Your task to perform on an android device: Find coffee shops on Maps Image 0: 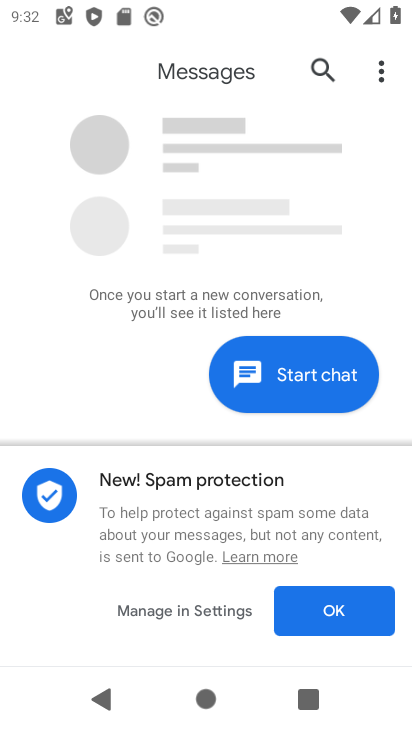
Step 0: press home button
Your task to perform on an android device: Find coffee shops on Maps Image 1: 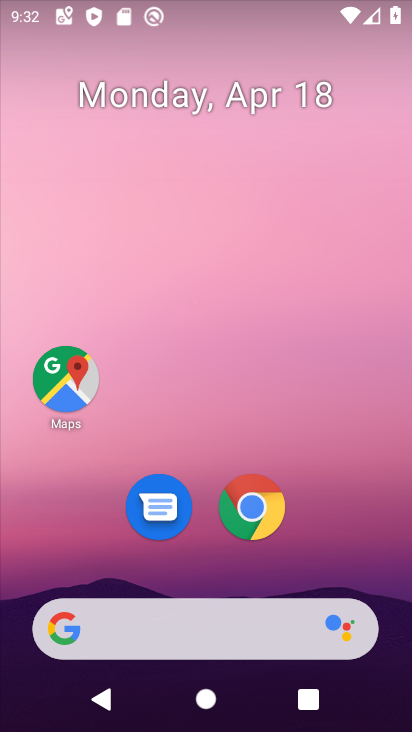
Step 1: click (72, 367)
Your task to perform on an android device: Find coffee shops on Maps Image 2: 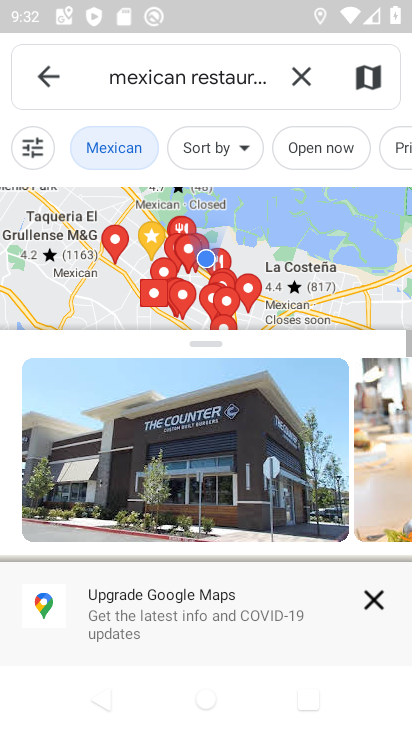
Step 2: click (307, 81)
Your task to perform on an android device: Find coffee shops on Maps Image 3: 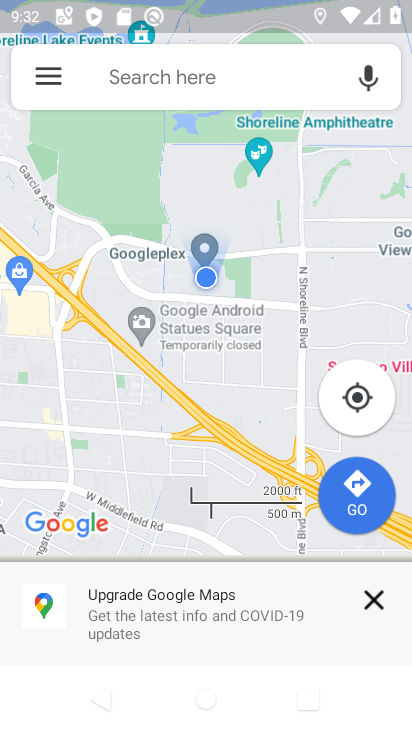
Step 3: click (176, 74)
Your task to perform on an android device: Find coffee shops on Maps Image 4: 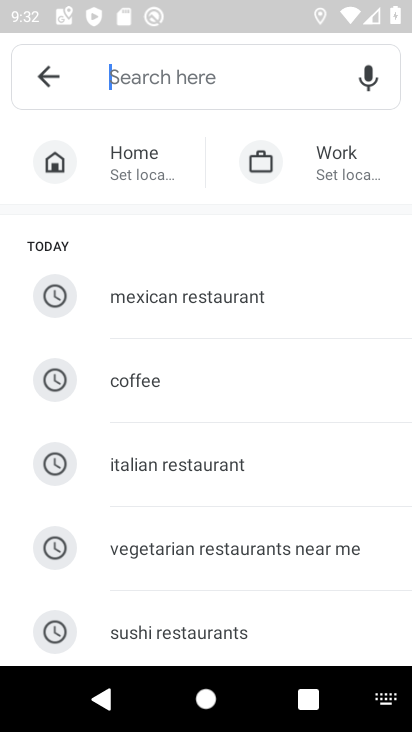
Step 4: click (135, 395)
Your task to perform on an android device: Find coffee shops on Maps Image 5: 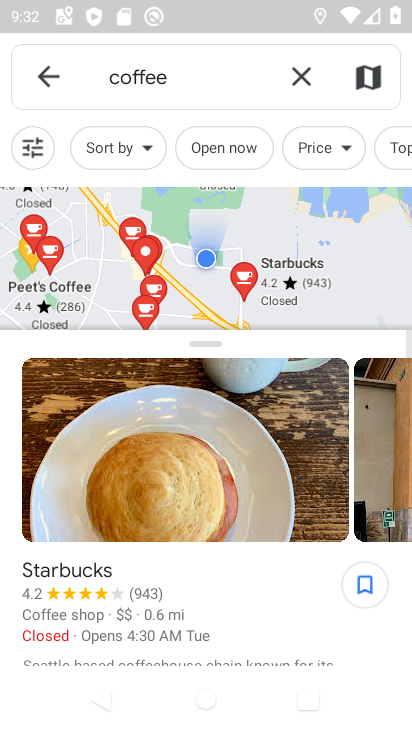
Step 5: task complete